Your task to perform on an android device: change text size in settings app Image 0: 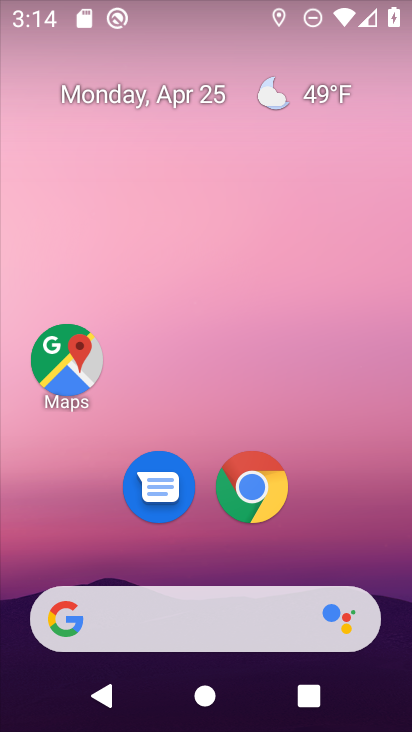
Step 0: drag from (376, 474) to (322, 48)
Your task to perform on an android device: change text size in settings app Image 1: 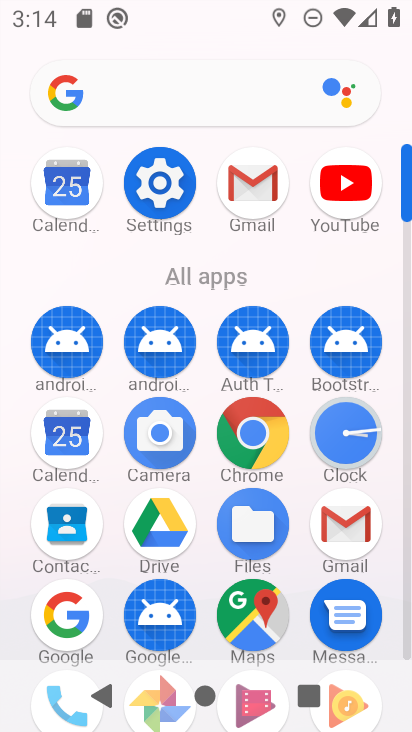
Step 1: click (156, 185)
Your task to perform on an android device: change text size in settings app Image 2: 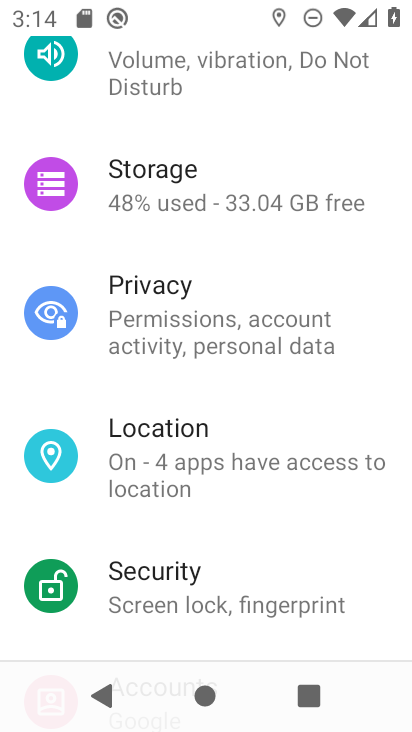
Step 2: drag from (351, 359) to (355, 536)
Your task to perform on an android device: change text size in settings app Image 3: 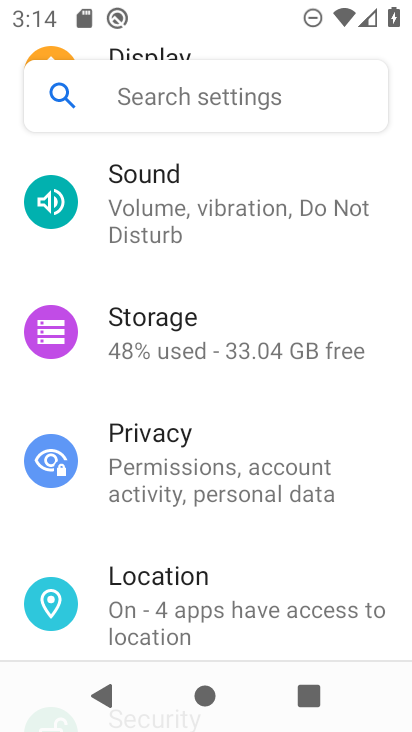
Step 3: drag from (340, 304) to (346, 573)
Your task to perform on an android device: change text size in settings app Image 4: 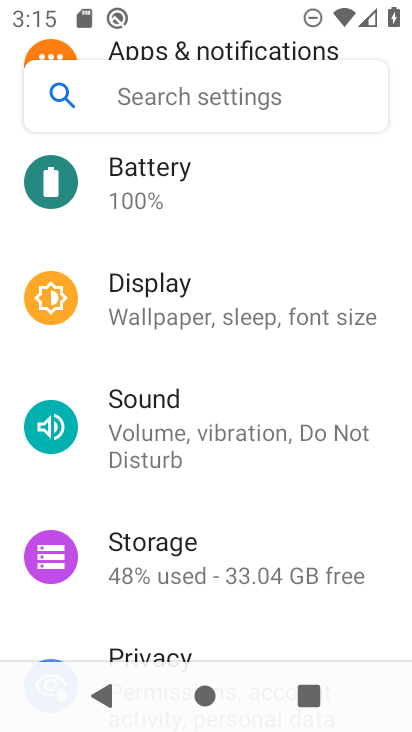
Step 4: click (149, 316)
Your task to perform on an android device: change text size in settings app Image 5: 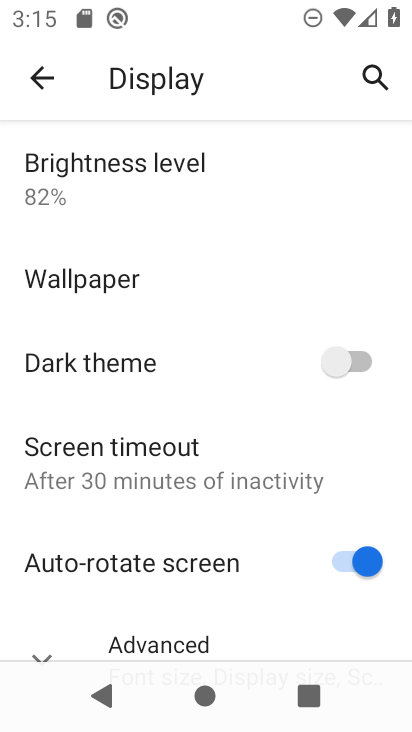
Step 5: drag from (55, 626) to (69, 372)
Your task to perform on an android device: change text size in settings app Image 6: 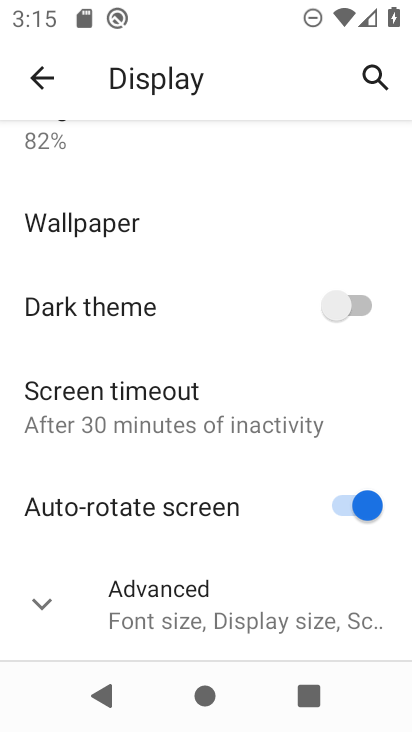
Step 6: click (41, 614)
Your task to perform on an android device: change text size in settings app Image 7: 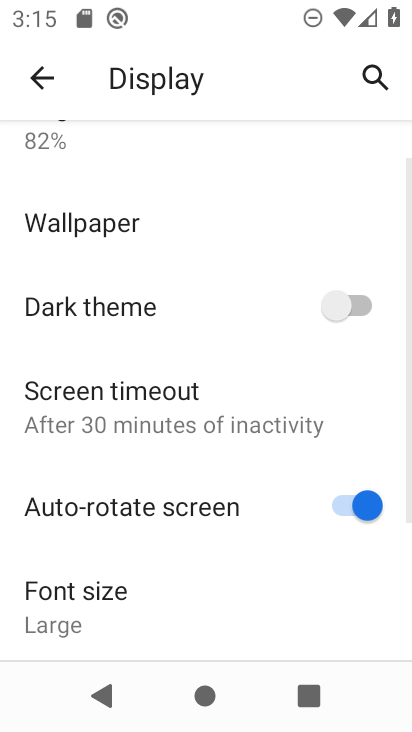
Step 7: click (66, 609)
Your task to perform on an android device: change text size in settings app Image 8: 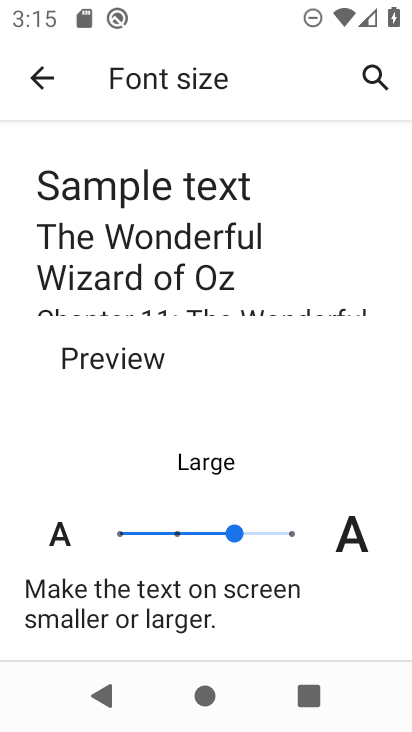
Step 8: click (175, 543)
Your task to perform on an android device: change text size in settings app Image 9: 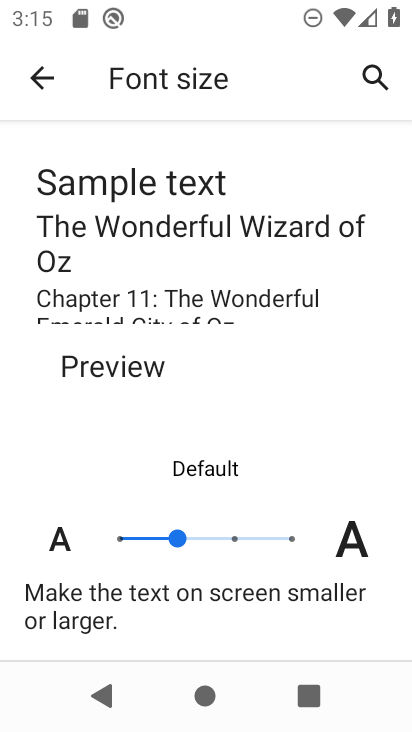
Step 9: task complete